Your task to perform on an android device: change keyboard looks Image 0: 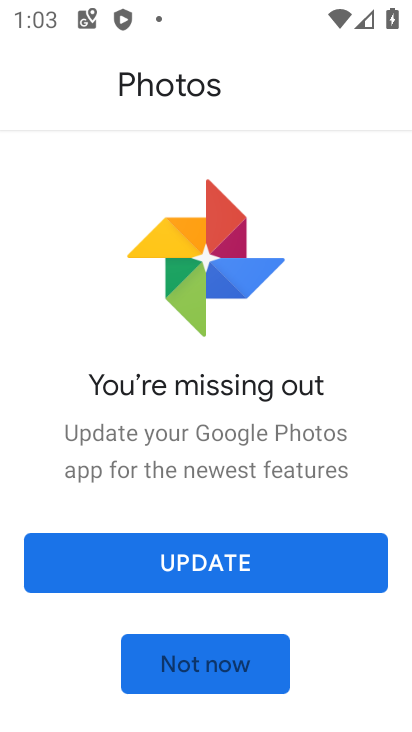
Step 0: press home button
Your task to perform on an android device: change keyboard looks Image 1: 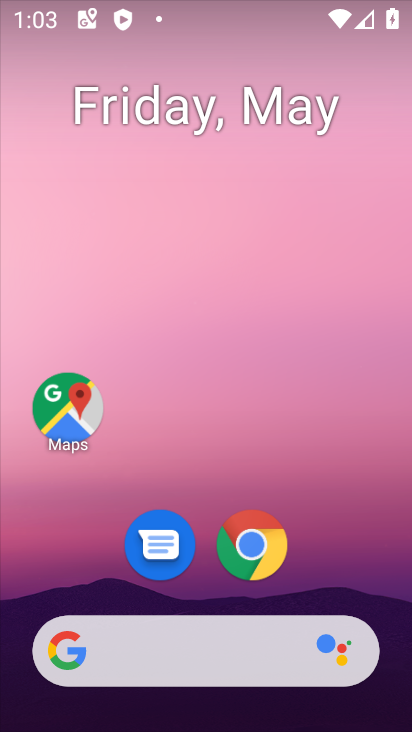
Step 1: drag from (293, 581) to (258, 104)
Your task to perform on an android device: change keyboard looks Image 2: 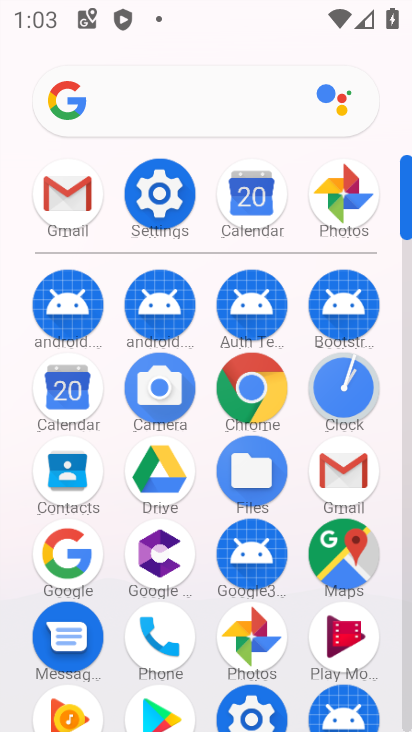
Step 2: click (172, 184)
Your task to perform on an android device: change keyboard looks Image 3: 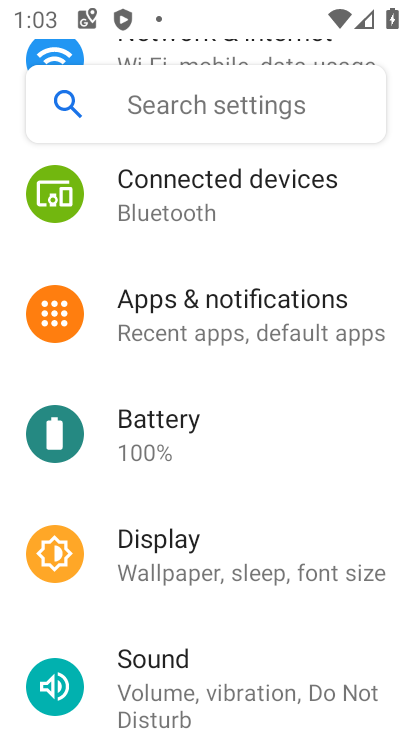
Step 3: drag from (293, 563) to (266, 183)
Your task to perform on an android device: change keyboard looks Image 4: 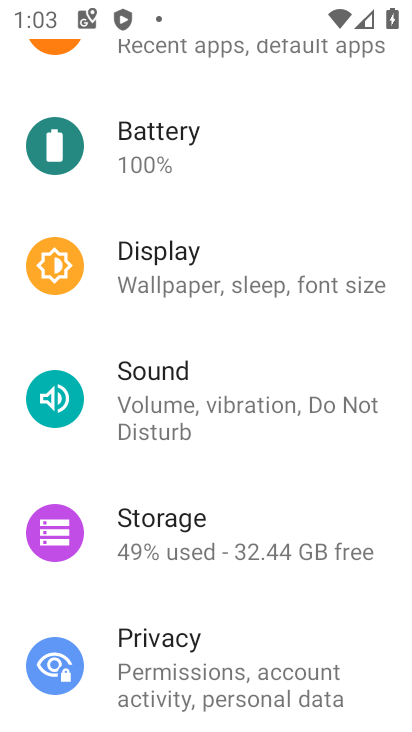
Step 4: drag from (271, 660) to (301, 322)
Your task to perform on an android device: change keyboard looks Image 5: 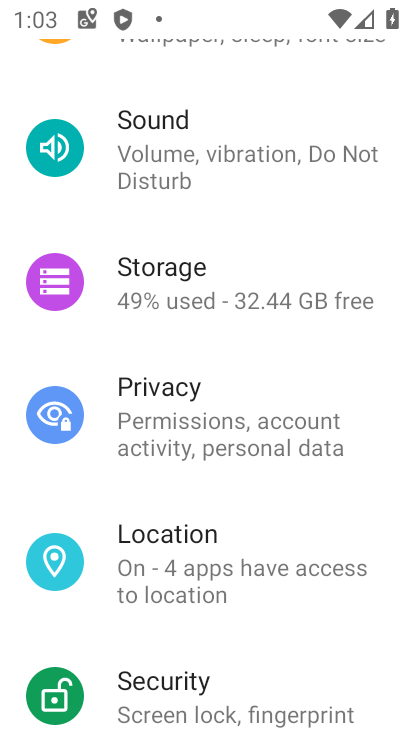
Step 5: drag from (261, 663) to (280, 341)
Your task to perform on an android device: change keyboard looks Image 6: 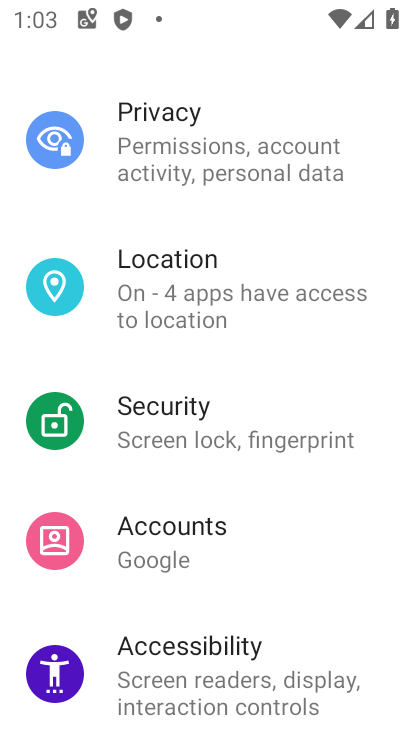
Step 6: drag from (263, 612) to (218, 175)
Your task to perform on an android device: change keyboard looks Image 7: 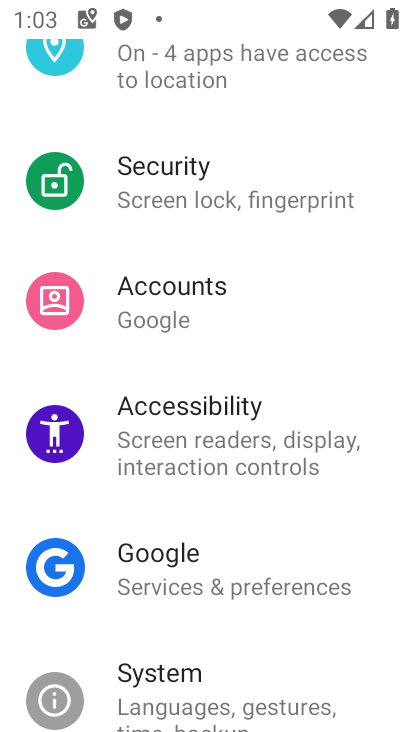
Step 7: drag from (250, 645) to (276, 89)
Your task to perform on an android device: change keyboard looks Image 8: 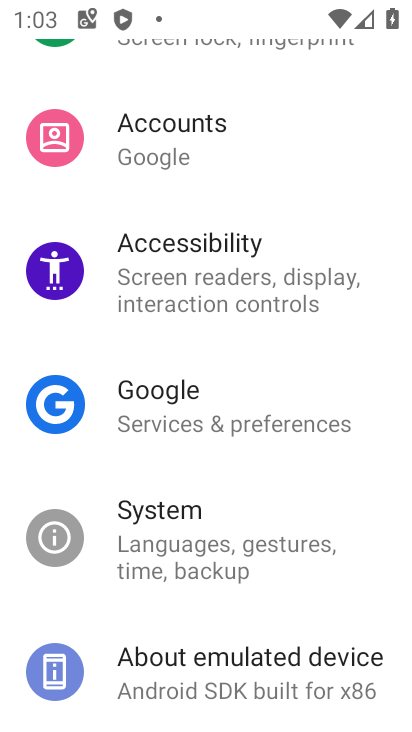
Step 8: click (246, 537)
Your task to perform on an android device: change keyboard looks Image 9: 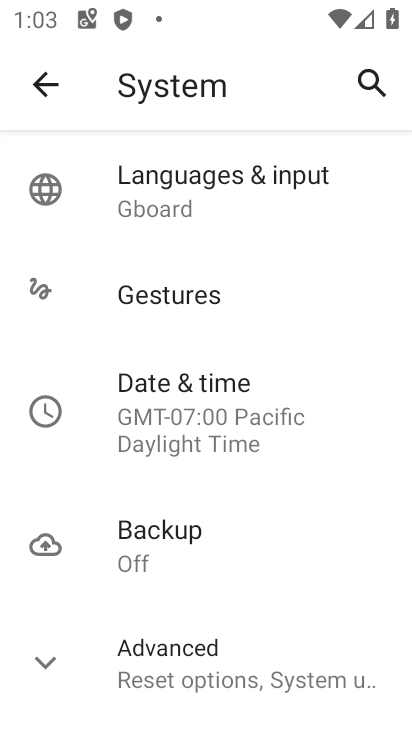
Step 9: click (204, 211)
Your task to perform on an android device: change keyboard looks Image 10: 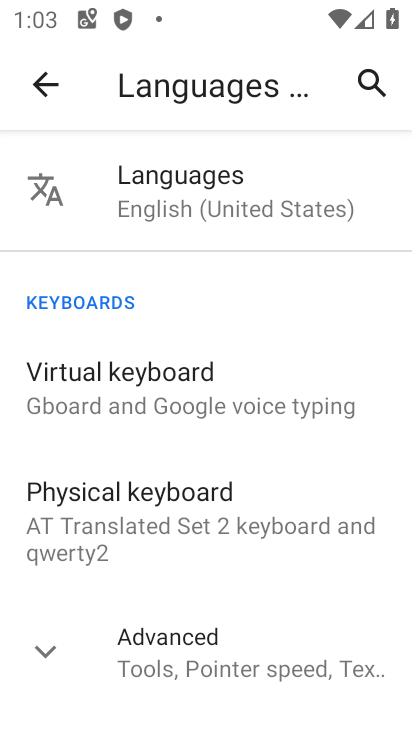
Step 10: click (187, 402)
Your task to perform on an android device: change keyboard looks Image 11: 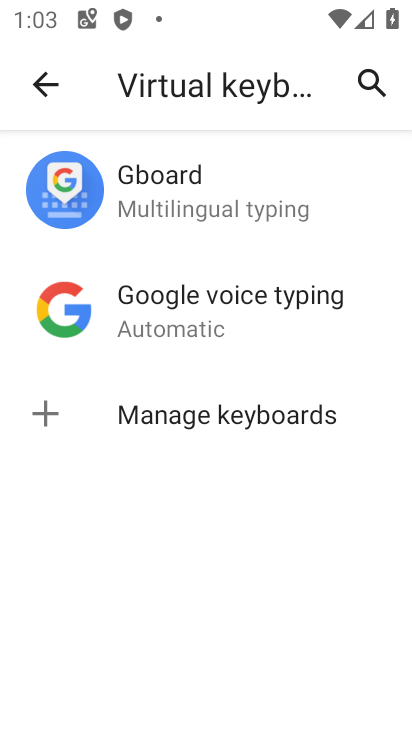
Step 11: click (211, 202)
Your task to perform on an android device: change keyboard looks Image 12: 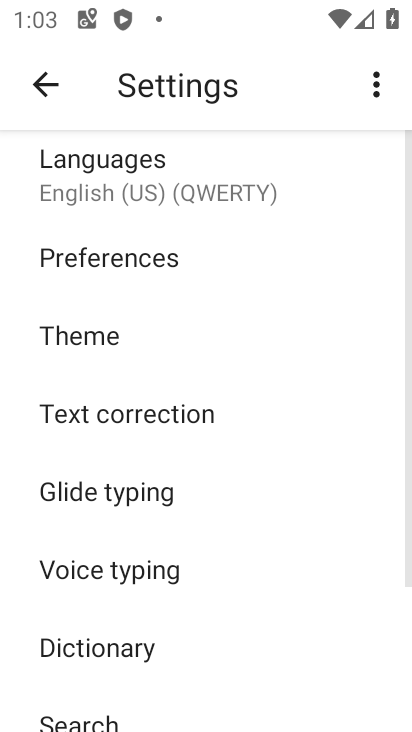
Step 12: click (134, 347)
Your task to perform on an android device: change keyboard looks Image 13: 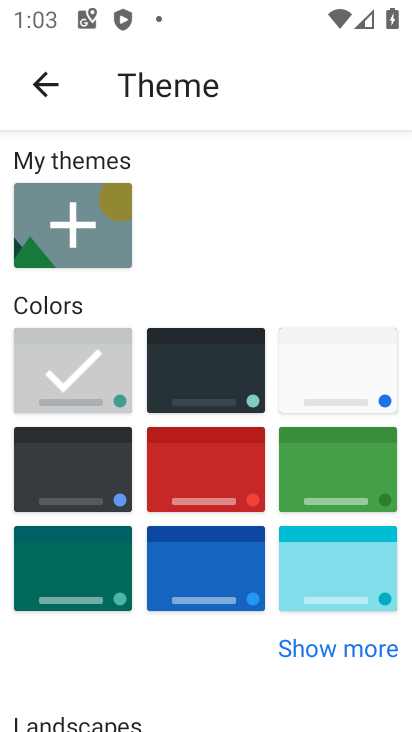
Step 13: click (196, 370)
Your task to perform on an android device: change keyboard looks Image 14: 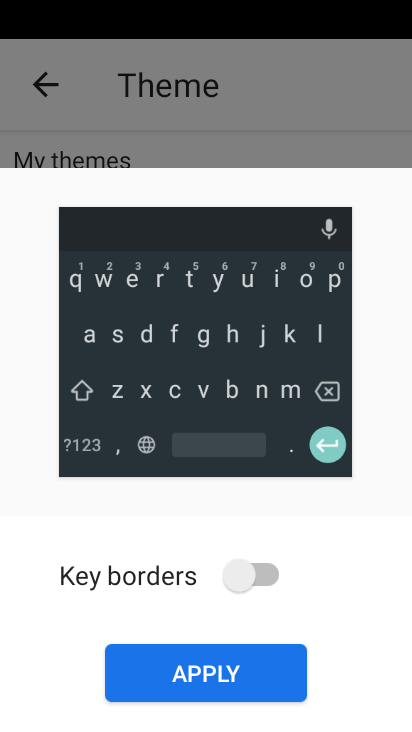
Step 14: click (274, 575)
Your task to perform on an android device: change keyboard looks Image 15: 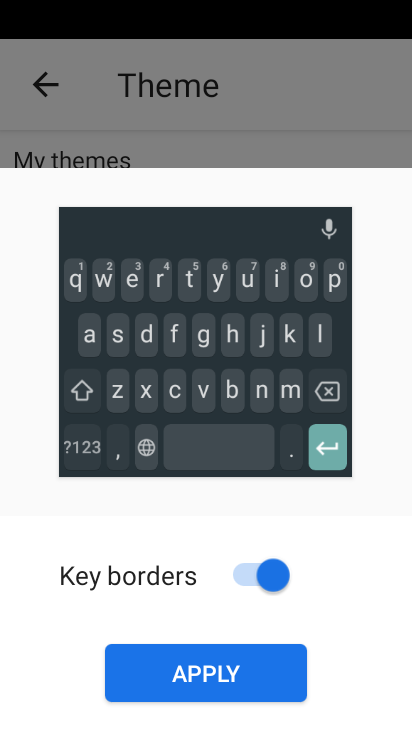
Step 15: click (254, 670)
Your task to perform on an android device: change keyboard looks Image 16: 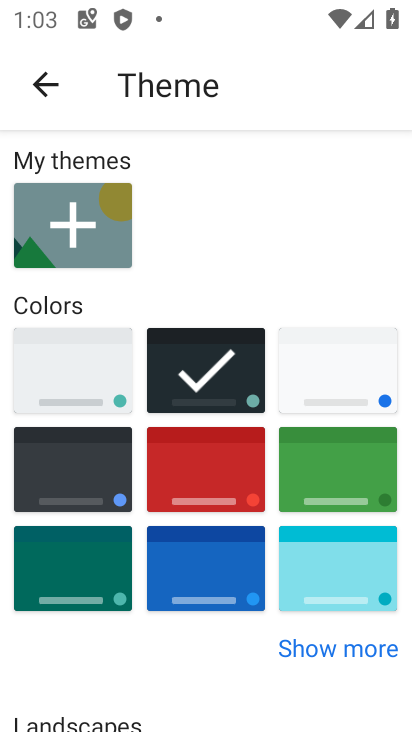
Step 16: task complete